Your task to perform on an android device: Open calendar and show me the first week of next month Image 0: 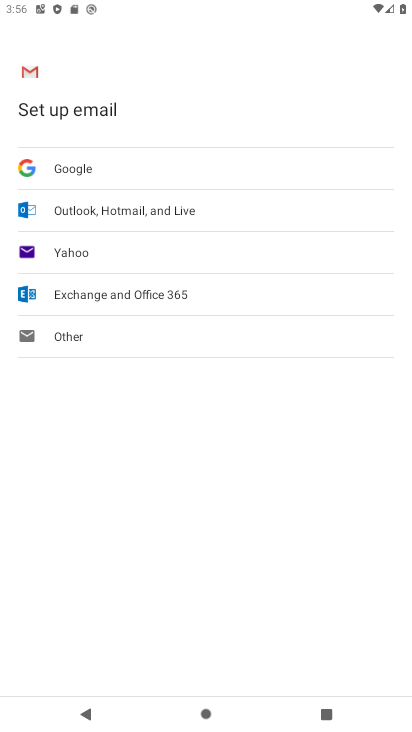
Step 0: press home button
Your task to perform on an android device: Open calendar and show me the first week of next month Image 1: 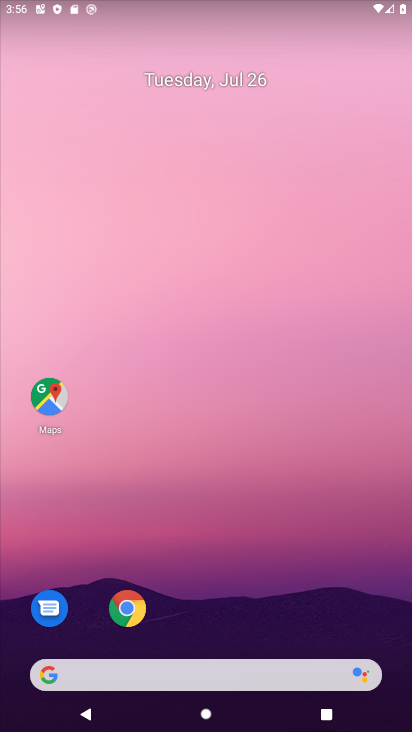
Step 1: drag from (209, 641) to (154, 84)
Your task to perform on an android device: Open calendar and show me the first week of next month Image 2: 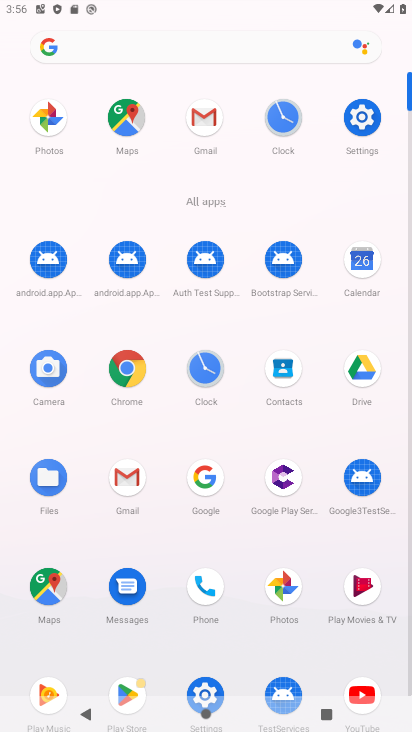
Step 2: click (349, 267)
Your task to perform on an android device: Open calendar and show me the first week of next month Image 3: 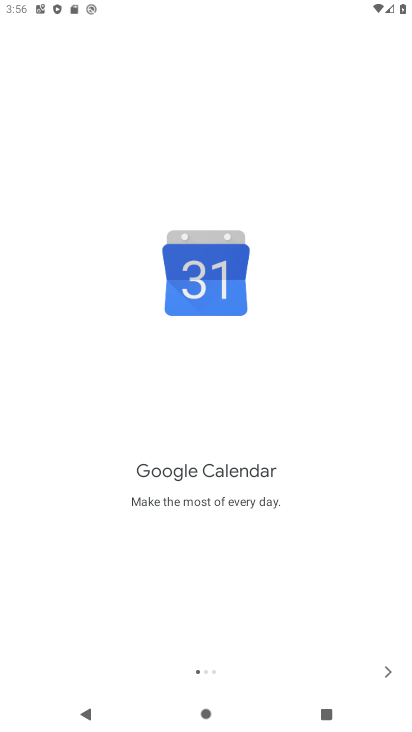
Step 3: click (388, 669)
Your task to perform on an android device: Open calendar and show me the first week of next month Image 4: 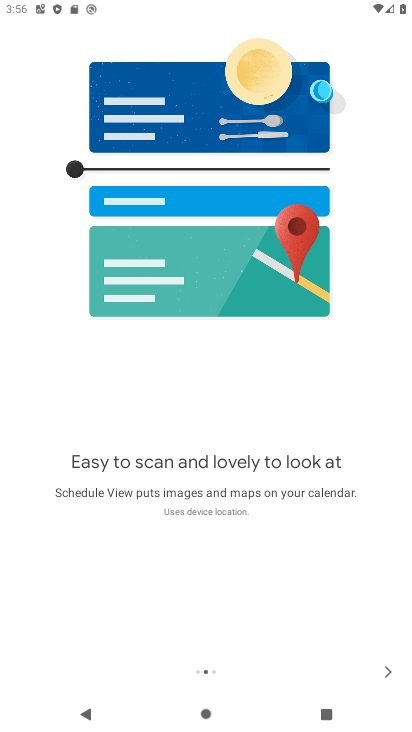
Step 4: click (383, 664)
Your task to perform on an android device: Open calendar and show me the first week of next month Image 5: 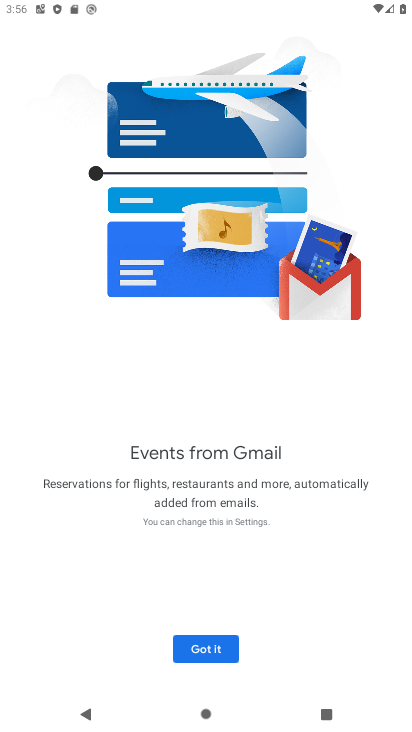
Step 5: click (212, 652)
Your task to perform on an android device: Open calendar and show me the first week of next month Image 6: 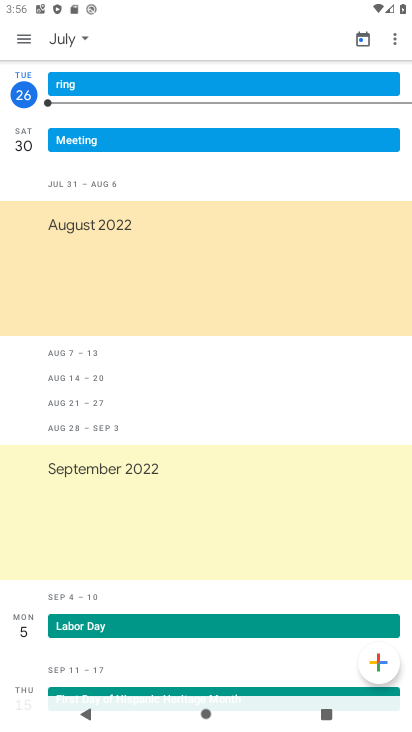
Step 6: click (24, 34)
Your task to perform on an android device: Open calendar and show me the first week of next month Image 7: 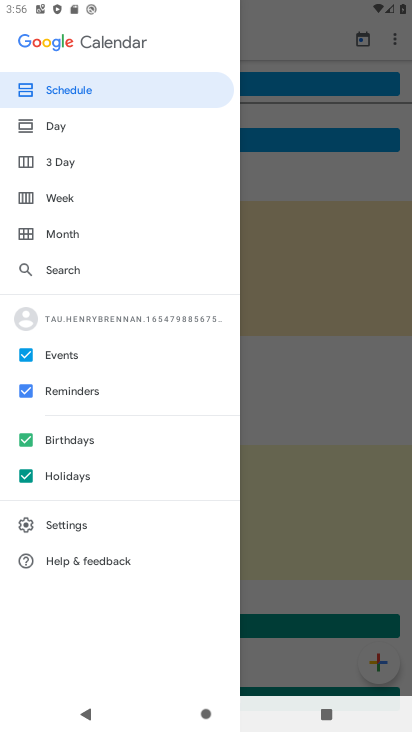
Step 7: click (69, 195)
Your task to perform on an android device: Open calendar and show me the first week of next month Image 8: 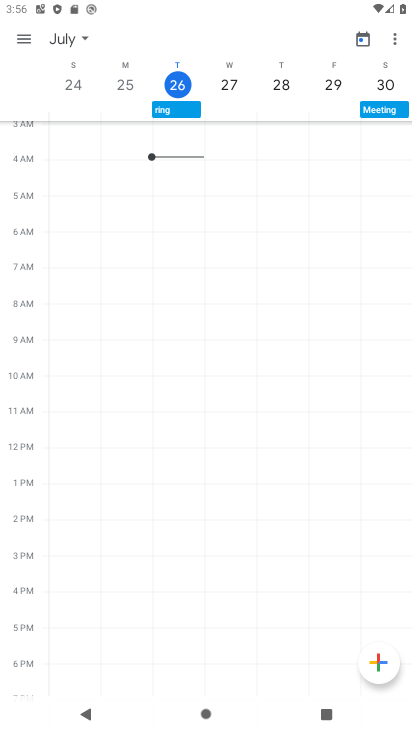
Step 8: task complete